Your task to perform on an android device: check data usage Image 0: 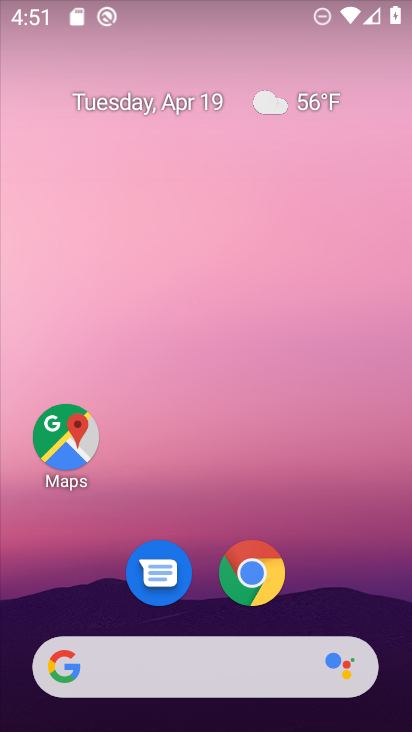
Step 0: drag from (341, 589) to (284, 34)
Your task to perform on an android device: check data usage Image 1: 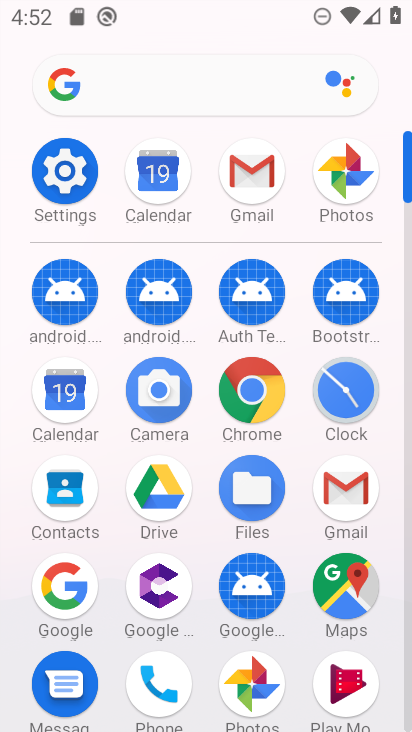
Step 1: click (62, 189)
Your task to perform on an android device: check data usage Image 2: 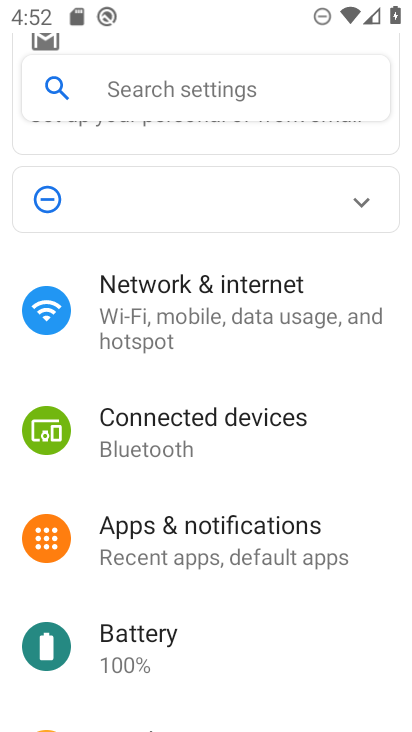
Step 2: click (163, 296)
Your task to perform on an android device: check data usage Image 3: 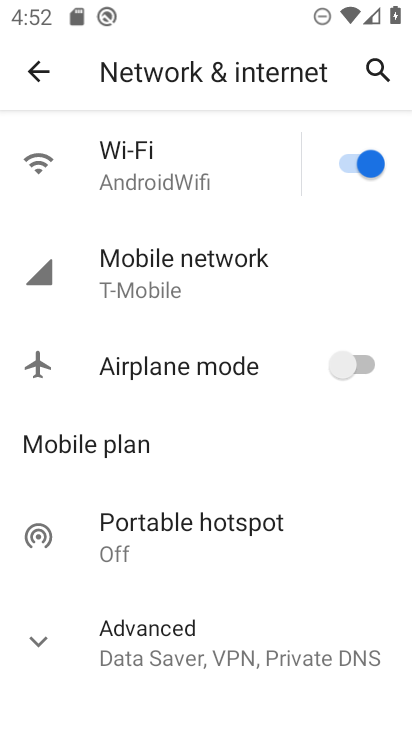
Step 3: click (158, 277)
Your task to perform on an android device: check data usage Image 4: 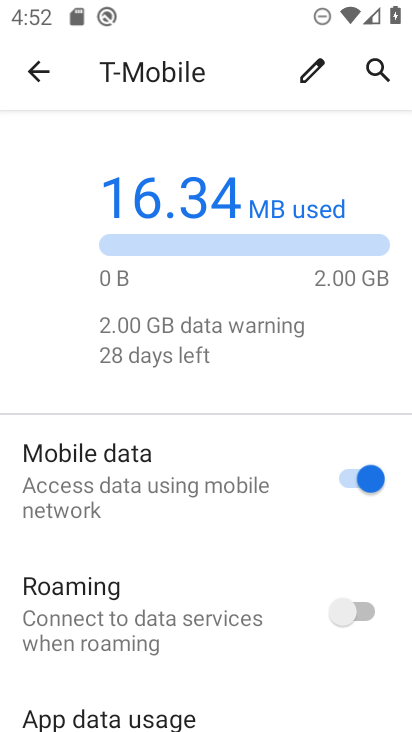
Step 4: drag from (190, 455) to (201, 233)
Your task to perform on an android device: check data usage Image 5: 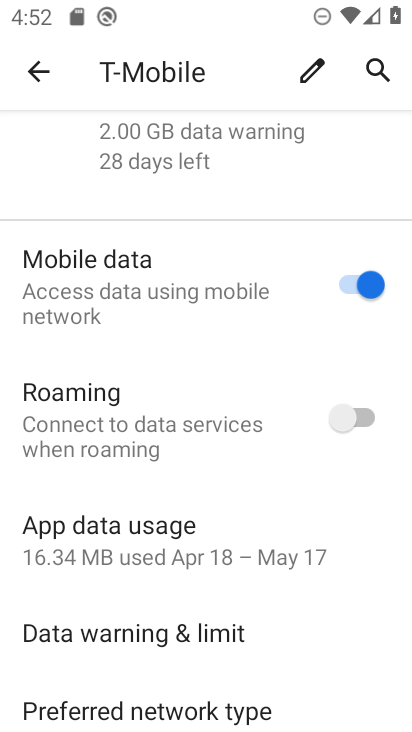
Step 5: click (87, 551)
Your task to perform on an android device: check data usage Image 6: 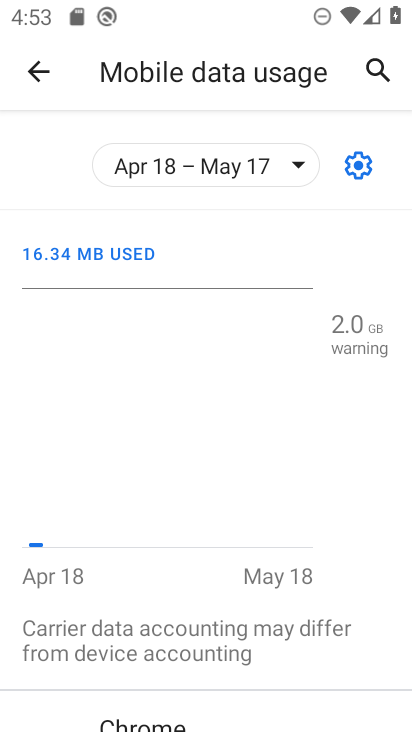
Step 6: task complete